Your task to perform on an android device: Open Google Maps and go to "Timeline" Image 0: 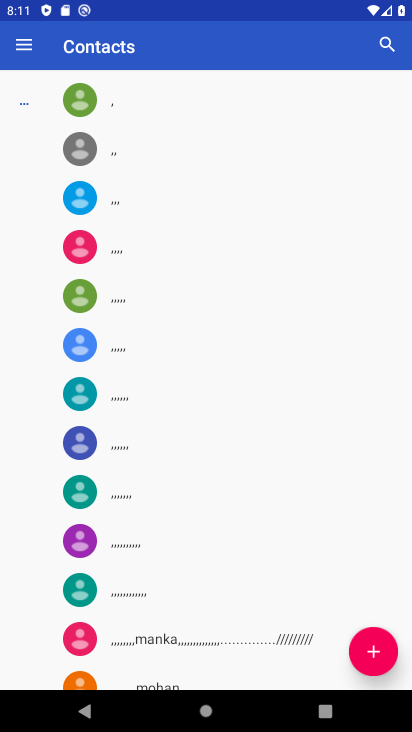
Step 0: press home button
Your task to perform on an android device: Open Google Maps and go to "Timeline" Image 1: 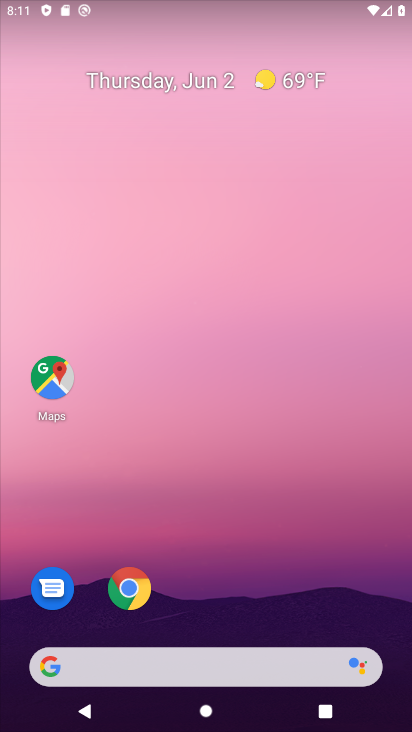
Step 1: drag from (244, 709) to (224, 167)
Your task to perform on an android device: Open Google Maps and go to "Timeline" Image 2: 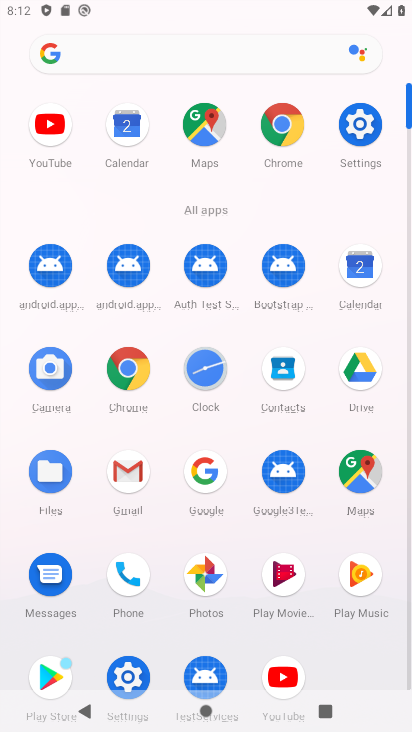
Step 2: click (362, 469)
Your task to perform on an android device: Open Google Maps and go to "Timeline" Image 3: 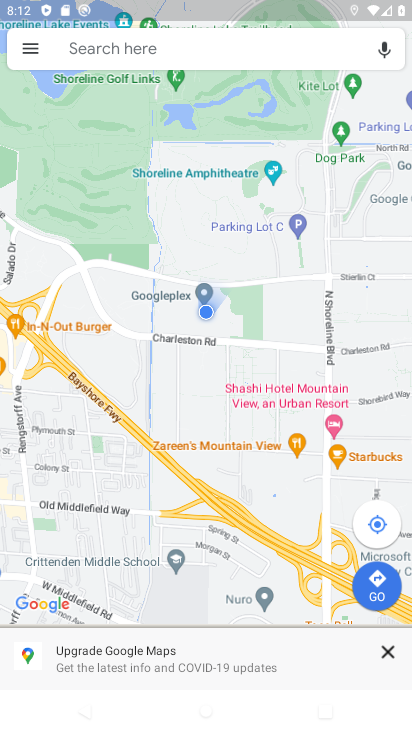
Step 3: click (362, 469)
Your task to perform on an android device: Open Google Maps and go to "Timeline" Image 4: 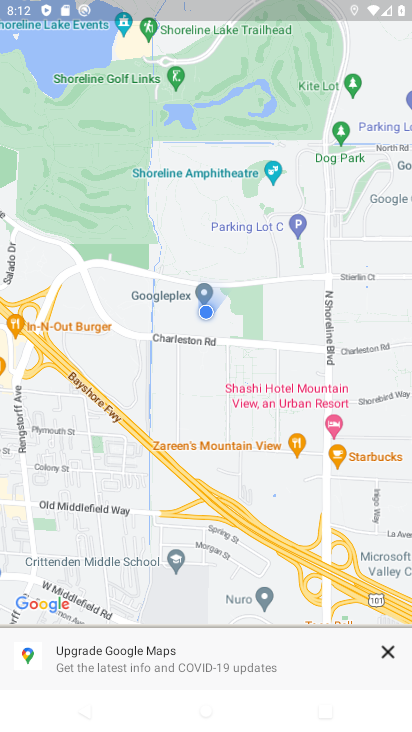
Step 4: click (385, 653)
Your task to perform on an android device: Open Google Maps and go to "Timeline" Image 5: 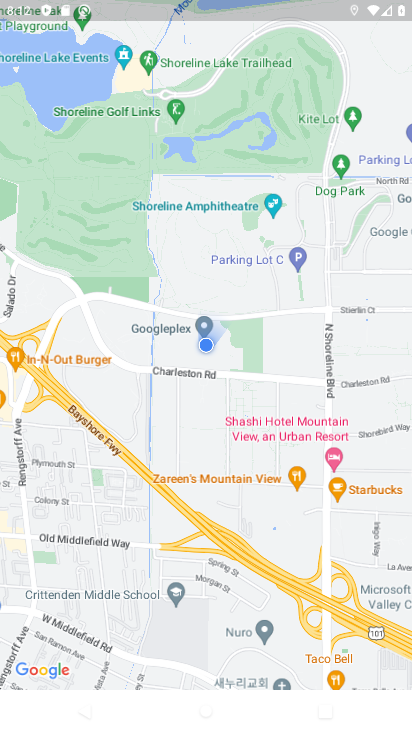
Step 5: click (172, 144)
Your task to perform on an android device: Open Google Maps and go to "Timeline" Image 6: 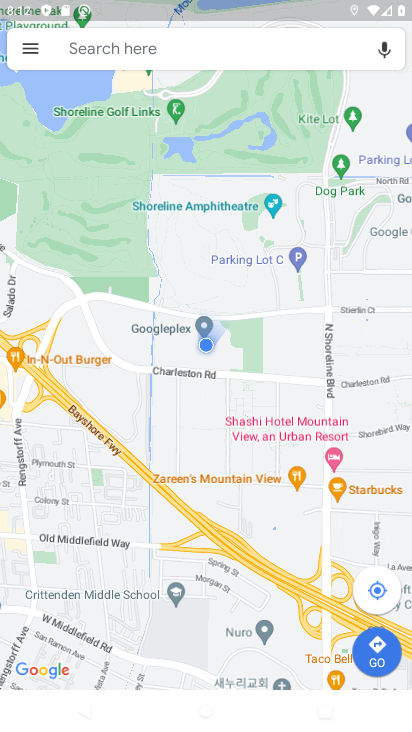
Step 6: click (28, 49)
Your task to perform on an android device: Open Google Maps and go to "Timeline" Image 7: 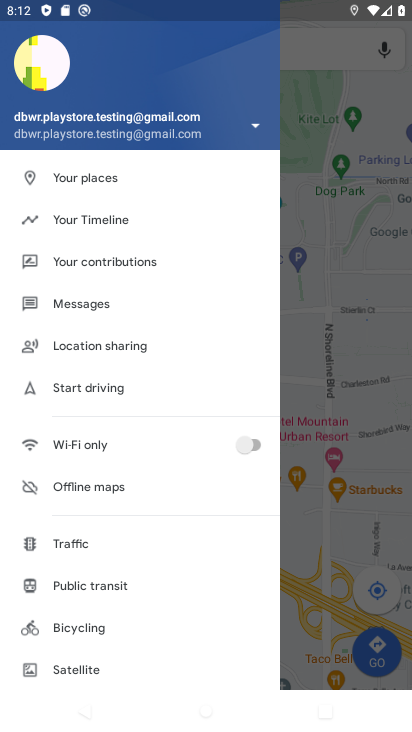
Step 7: click (93, 219)
Your task to perform on an android device: Open Google Maps and go to "Timeline" Image 8: 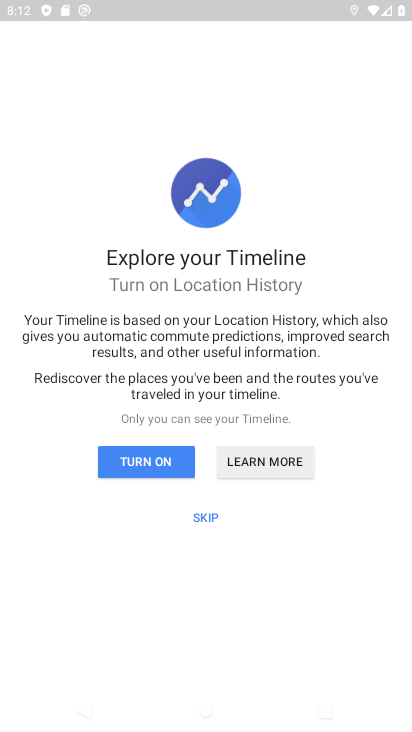
Step 8: click (201, 514)
Your task to perform on an android device: Open Google Maps and go to "Timeline" Image 9: 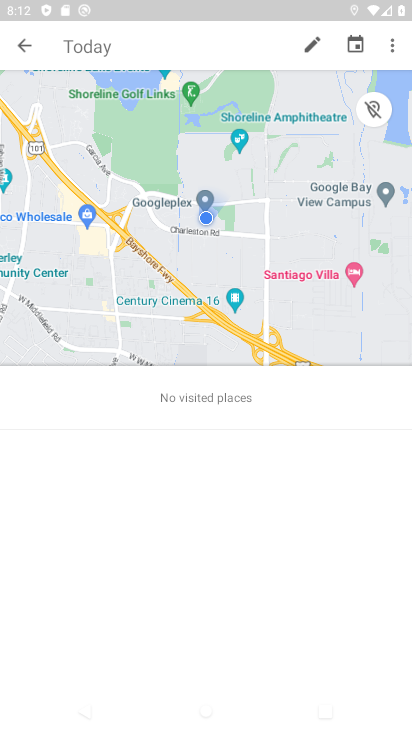
Step 9: task complete